Your task to perform on an android device: Show me recent news Image 0: 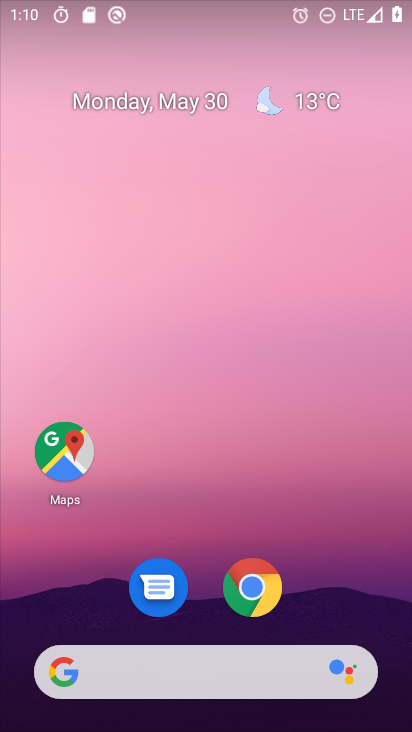
Step 0: click (249, 577)
Your task to perform on an android device: Show me recent news Image 1: 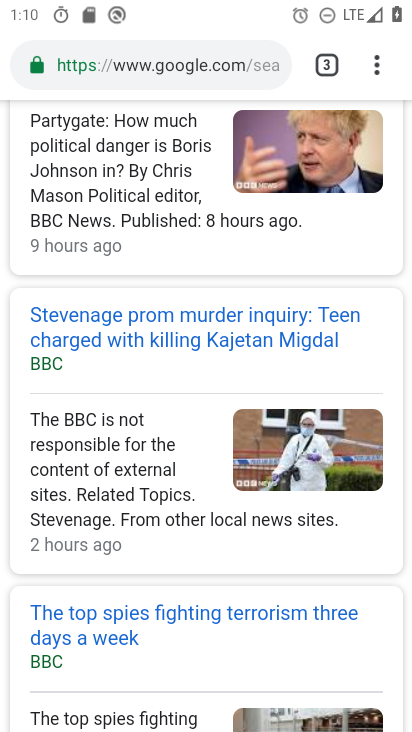
Step 1: task complete